Your task to perform on an android device: open app "Microsoft Authenticator" (install if not already installed) Image 0: 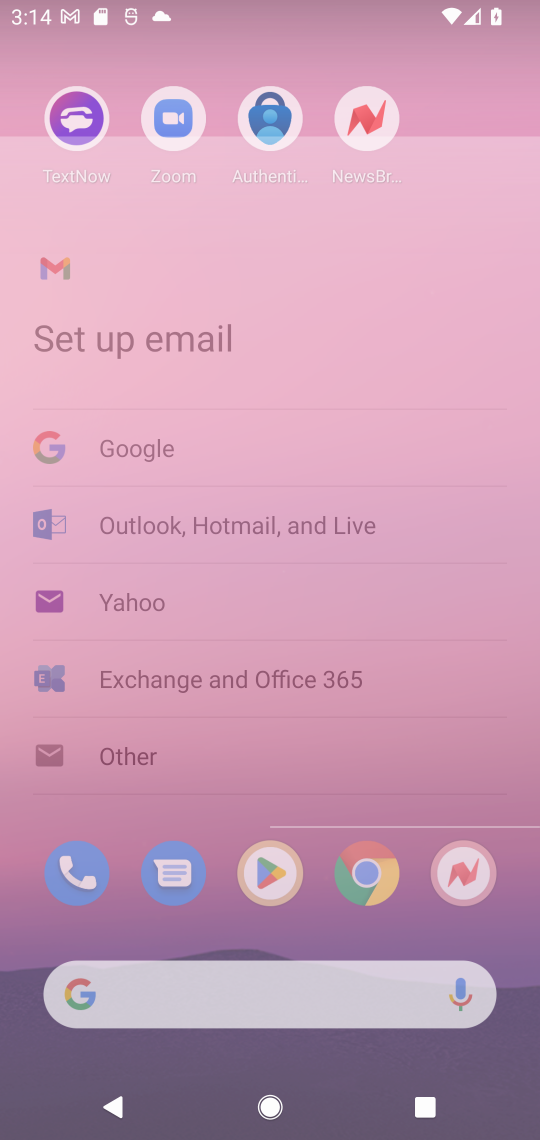
Step 0: press home button
Your task to perform on an android device: open app "Microsoft Authenticator" (install if not already installed) Image 1: 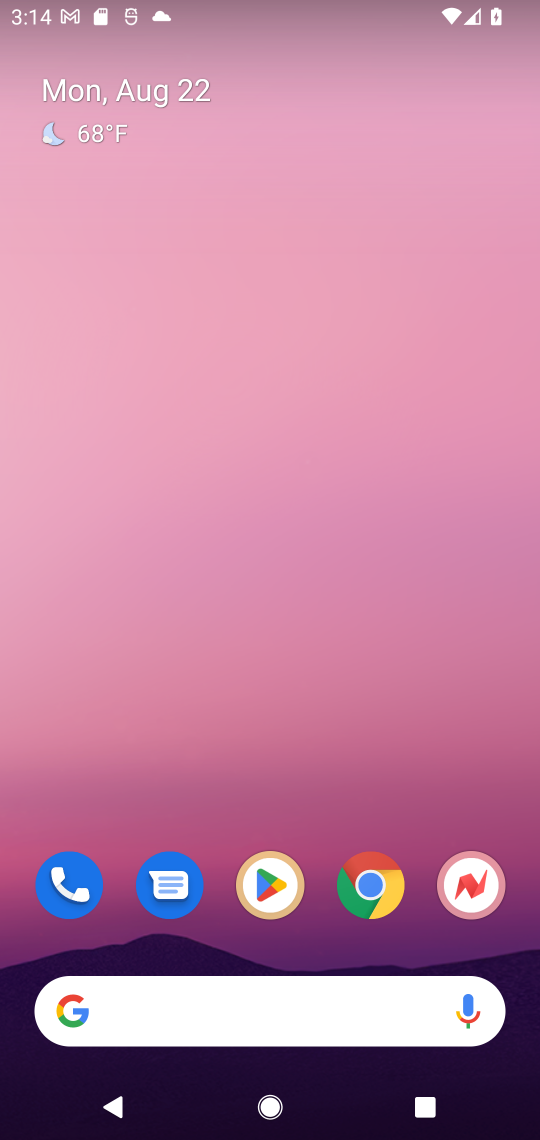
Step 1: click (267, 883)
Your task to perform on an android device: open app "Microsoft Authenticator" (install if not already installed) Image 2: 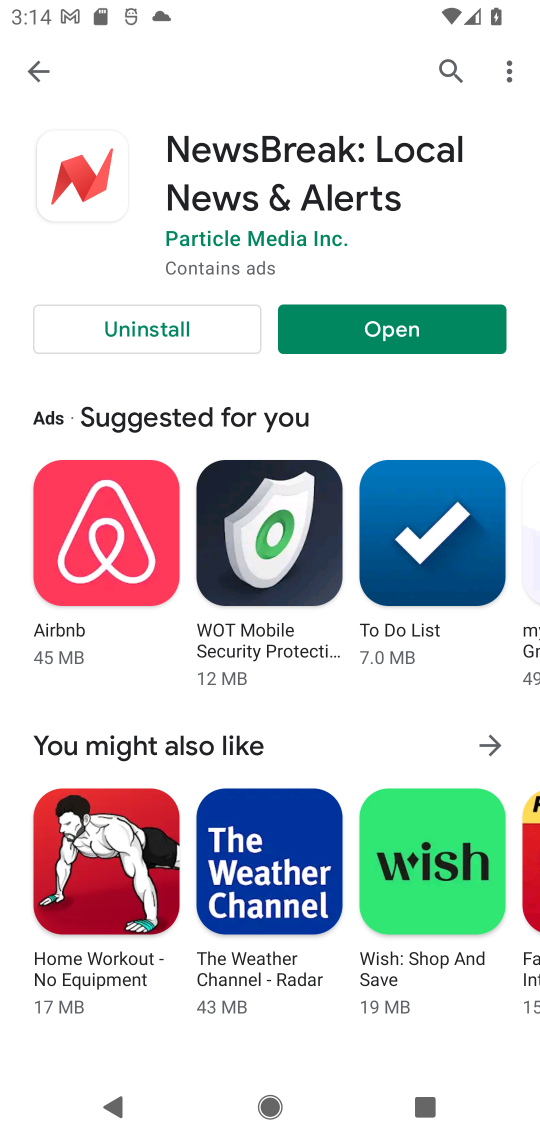
Step 2: click (442, 71)
Your task to perform on an android device: open app "Microsoft Authenticator" (install if not already installed) Image 3: 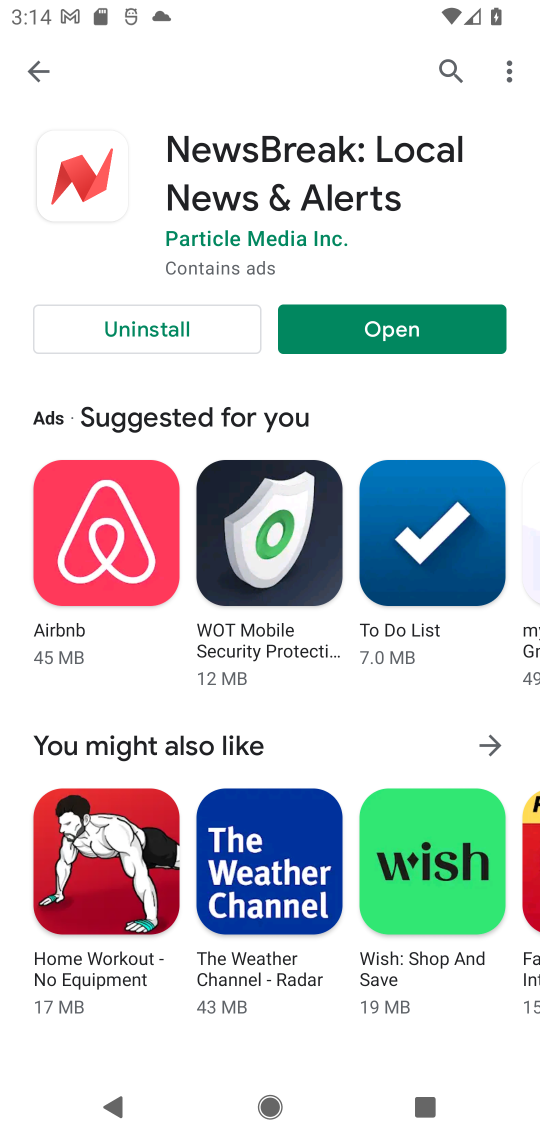
Step 3: click (444, 65)
Your task to perform on an android device: open app "Microsoft Authenticator" (install if not already installed) Image 4: 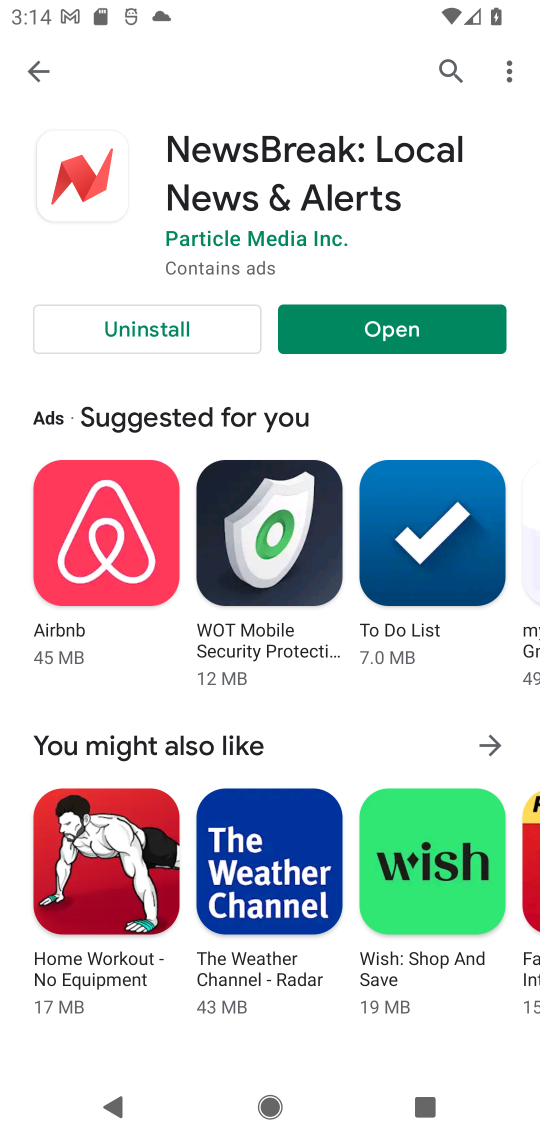
Step 4: click (50, 72)
Your task to perform on an android device: open app "Microsoft Authenticator" (install if not already installed) Image 5: 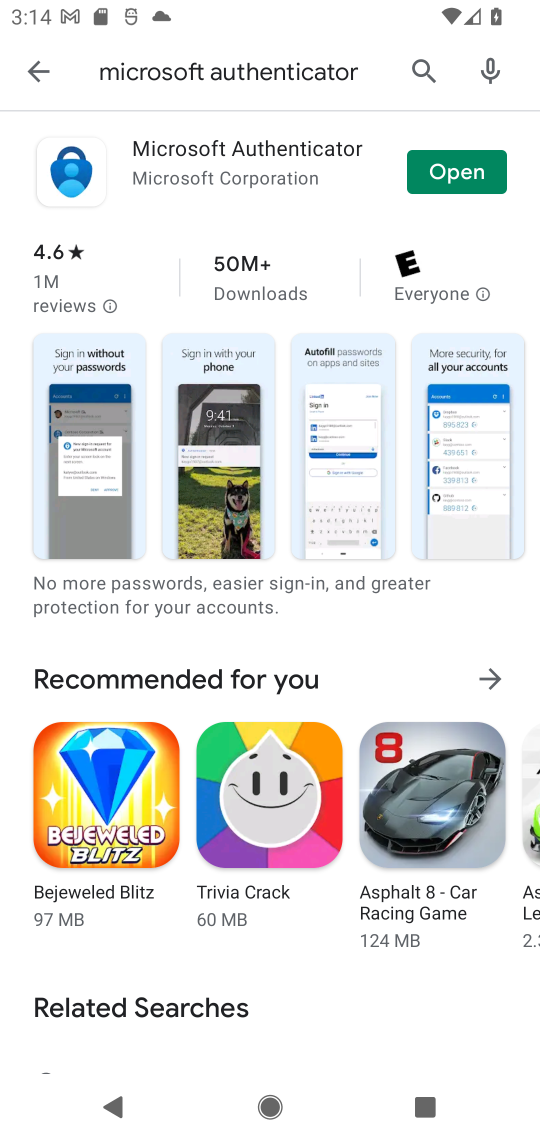
Step 5: click (478, 183)
Your task to perform on an android device: open app "Microsoft Authenticator" (install if not already installed) Image 6: 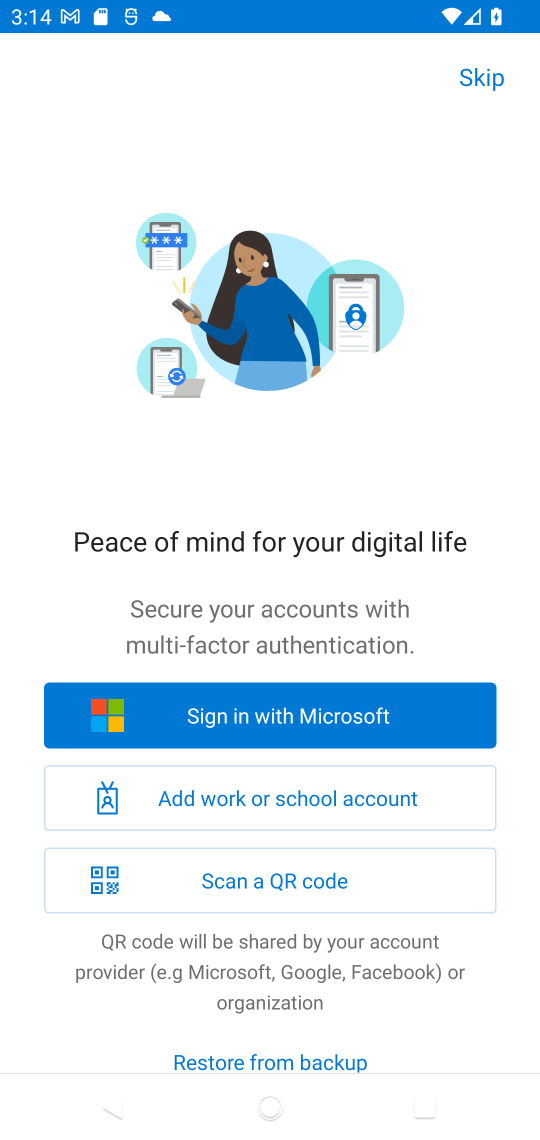
Step 6: click (479, 72)
Your task to perform on an android device: open app "Microsoft Authenticator" (install if not already installed) Image 7: 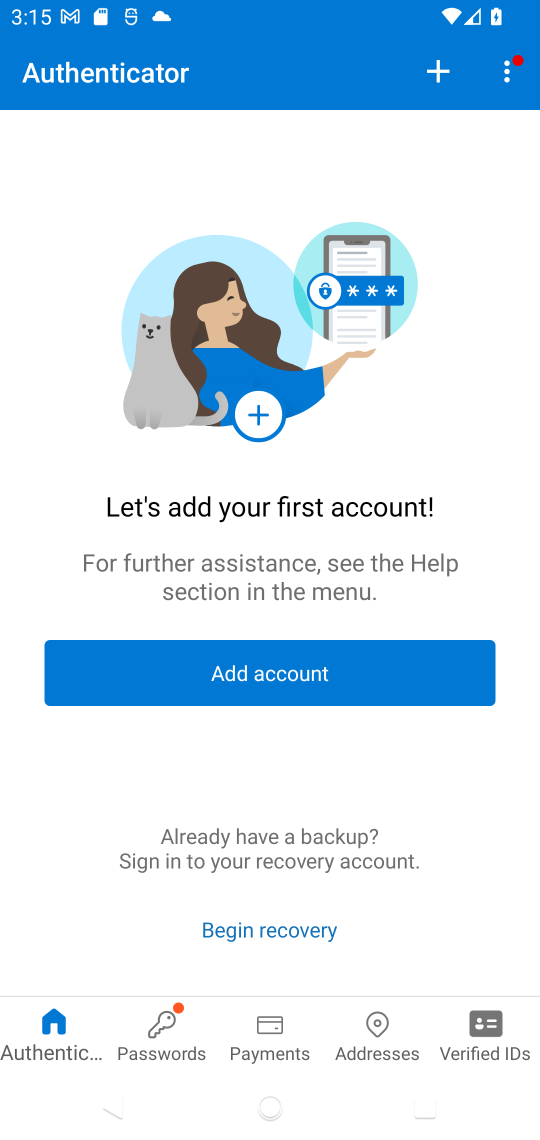
Step 7: task complete